Your task to perform on an android device: open sync settings in chrome Image 0: 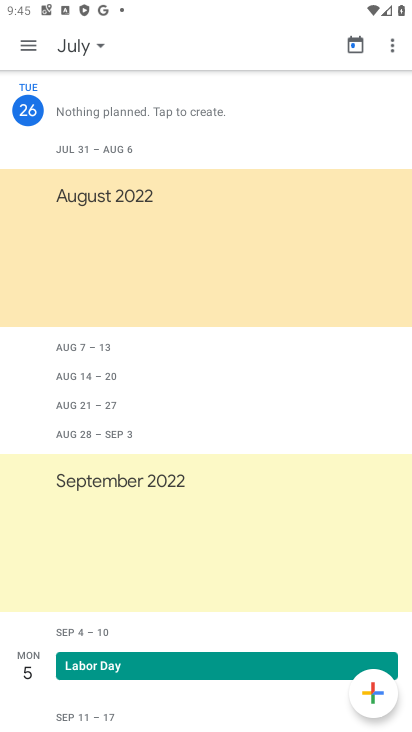
Step 0: press home button
Your task to perform on an android device: open sync settings in chrome Image 1: 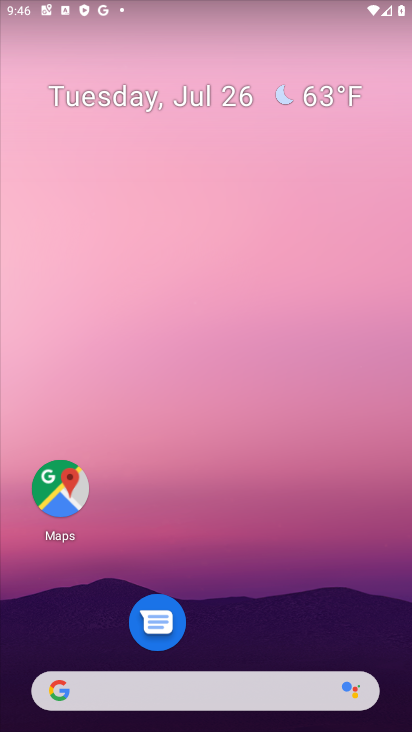
Step 1: drag from (294, 531) to (271, 77)
Your task to perform on an android device: open sync settings in chrome Image 2: 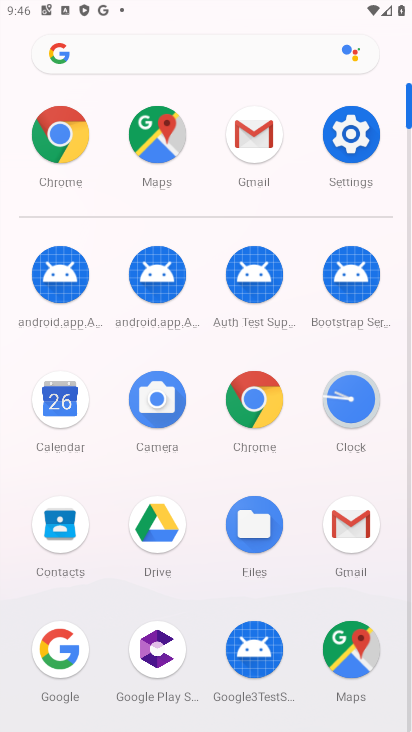
Step 2: click (57, 150)
Your task to perform on an android device: open sync settings in chrome Image 3: 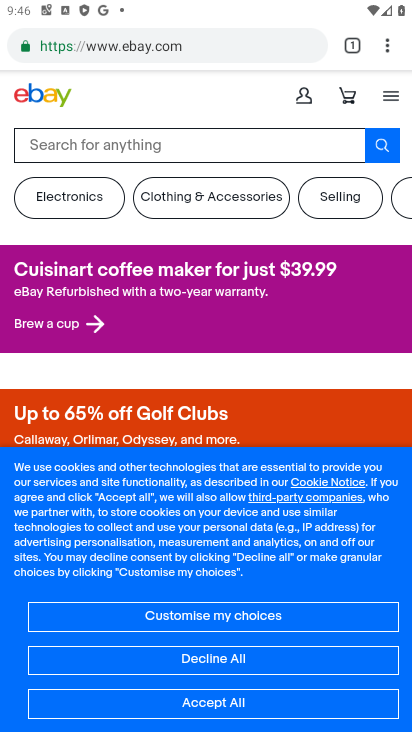
Step 3: drag from (395, 45) to (213, 543)
Your task to perform on an android device: open sync settings in chrome Image 4: 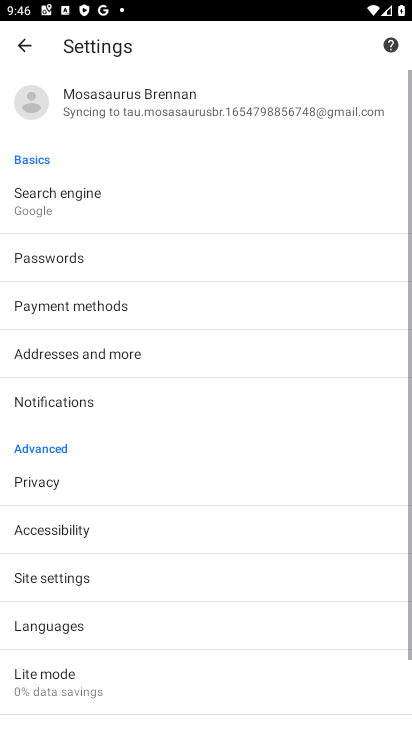
Step 4: drag from (187, 547) to (224, 131)
Your task to perform on an android device: open sync settings in chrome Image 5: 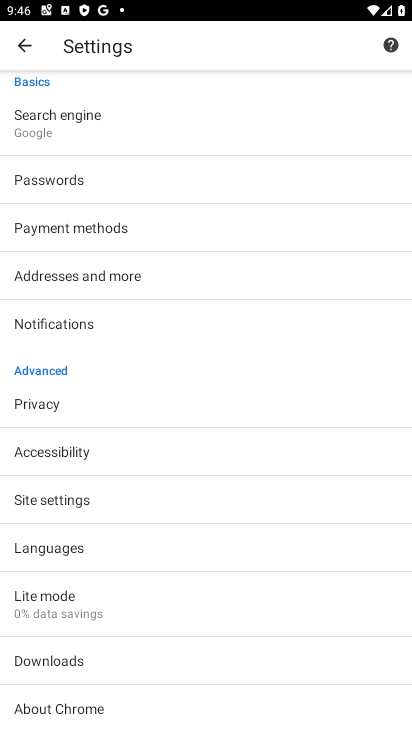
Step 5: click (79, 500)
Your task to perform on an android device: open sync settings in chrome Image 6: 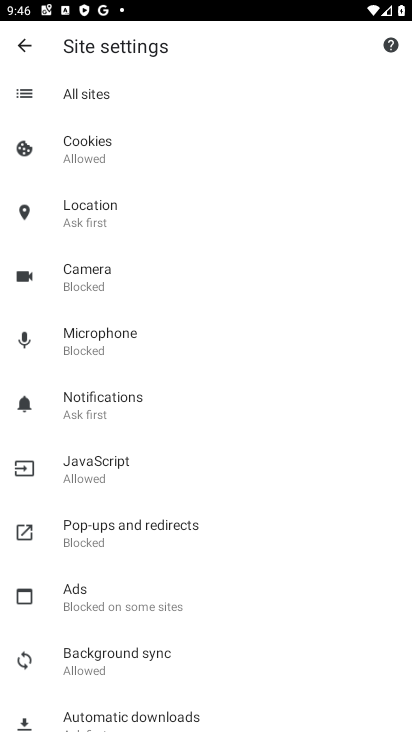
Step 6: click (90, 658)
Your task to perform on an android device: open sync settings in chrome Image 7: 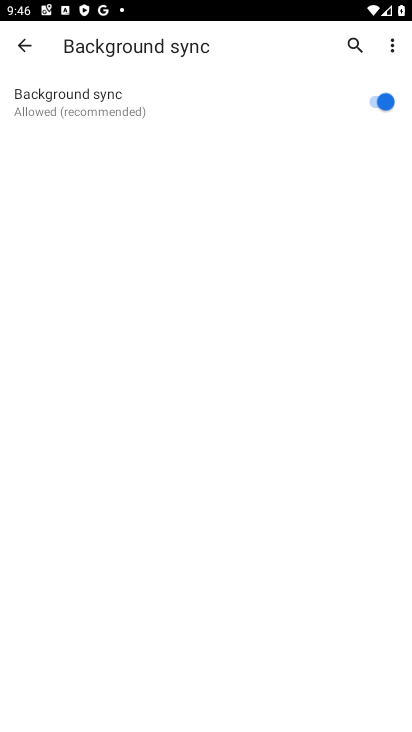
Step 7: task complete